Your task to perform on an android device: delete location history Image 0: 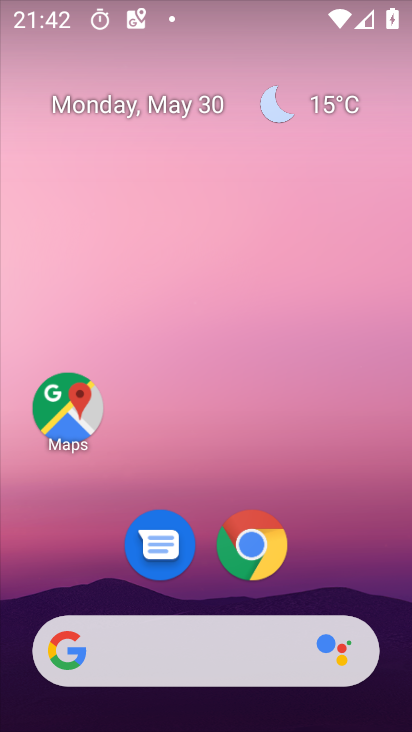
Step 0: drag from (334, 573) to (327, 113)
Your task to perform on an android device: delete location history Image 1: 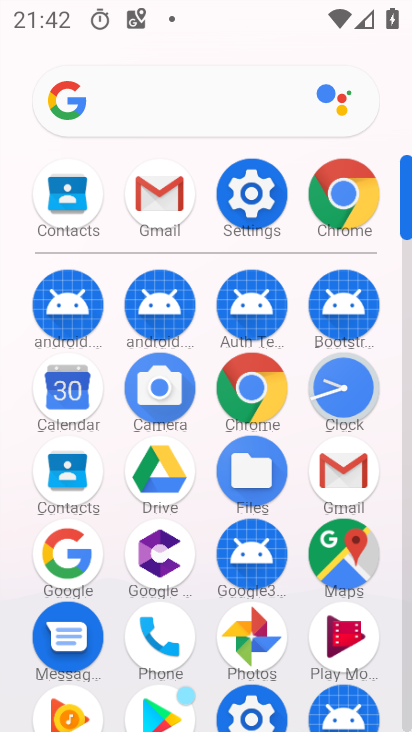
Step 1: click (264, 207)
Your task to perform on an android device: delete location history Image 2: 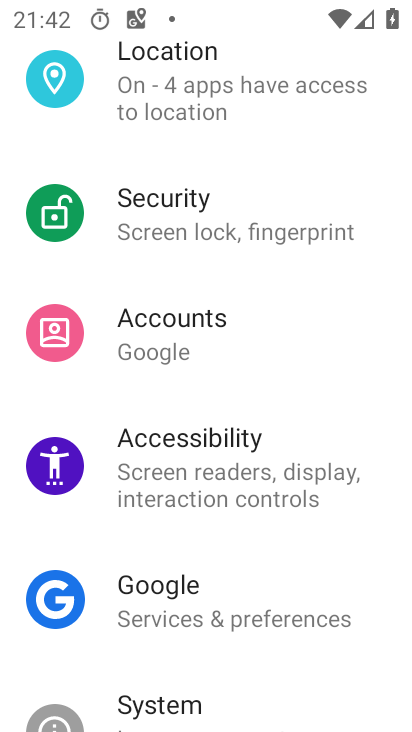
Step 2: click (214, 103)
Your task to perform on an android device: delete location history Image 3: 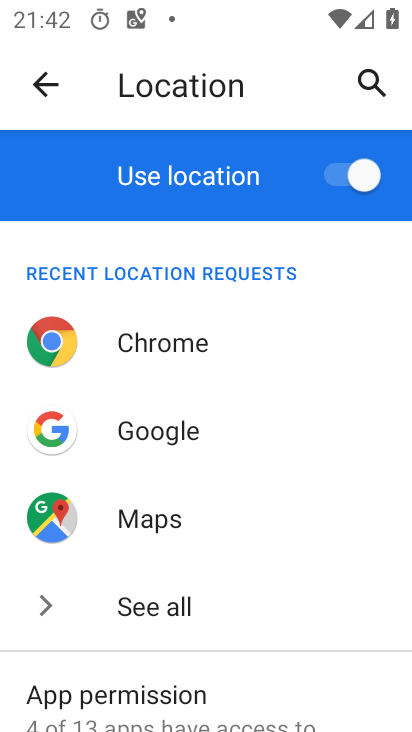
Step 3: drag from (297, 679) to (295, 323)
Your task to perform on an android device: delete location history Image 4: 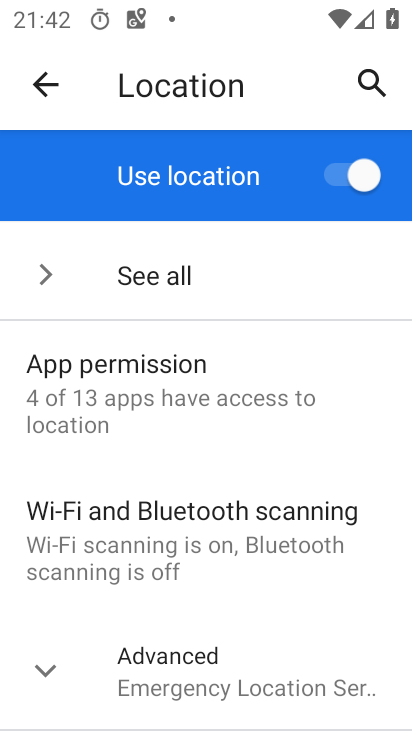
Step 4: drag from (289, 628) to (287, 403)
Your task to perform on an android device: delete location history Image 5: 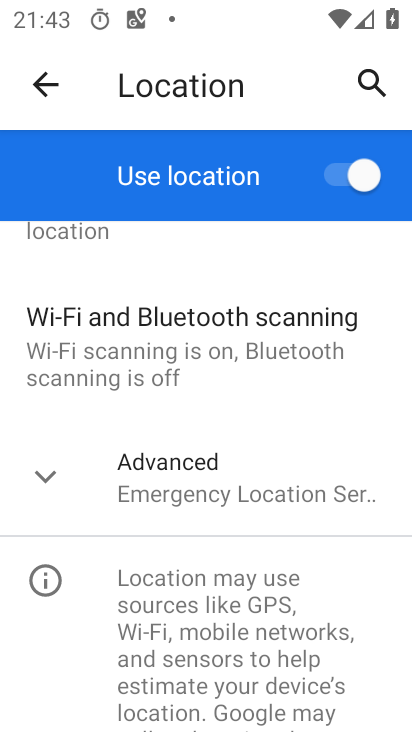
Step 5: click (265, 507)
Your task to perform on an android device: delete location history Image 6: 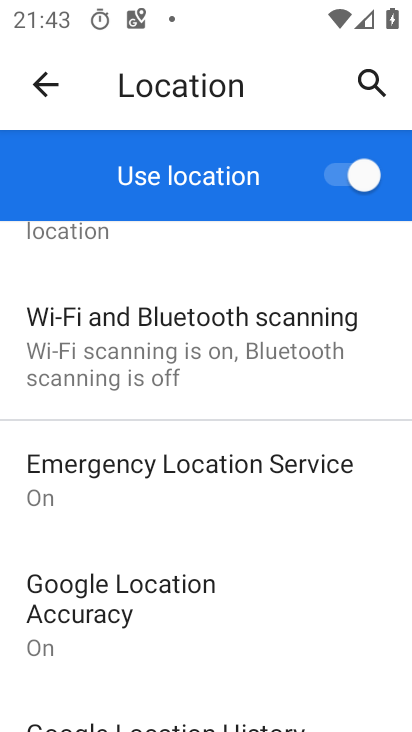
Step 6: drag from (306, 637) to (270, 370)
Your task to perform on an android device: delete location history Image 7: 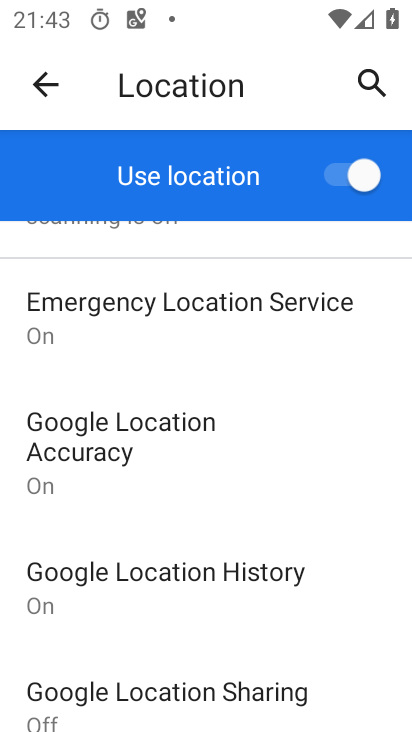
Step 7: click (189, 577)
Your task to perform on an android device: delete location history Image 8: 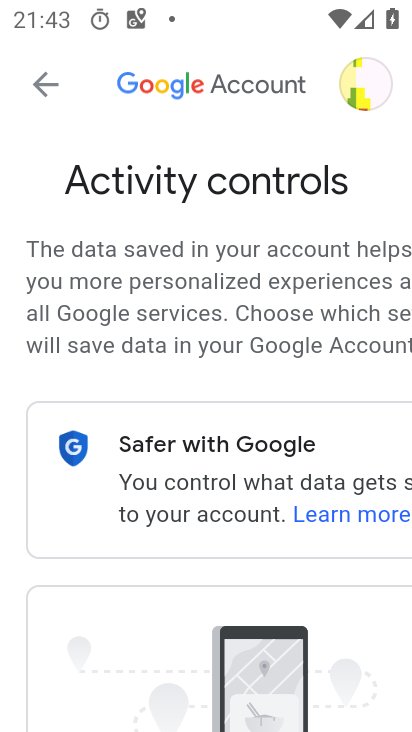
Step 8: drag from (348, 628) to (286, 159)
Your task to perform on an android device: delete location history Image 9: 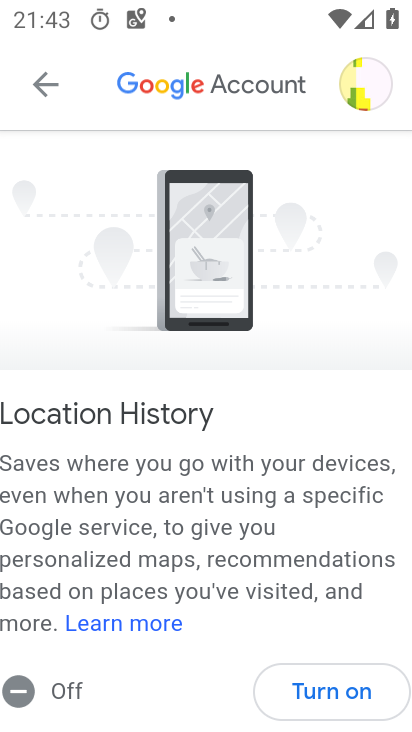
Step 9: drag from (313, 617) to (216, 206)
Your task to perform on an android device: delete location history Image 10: 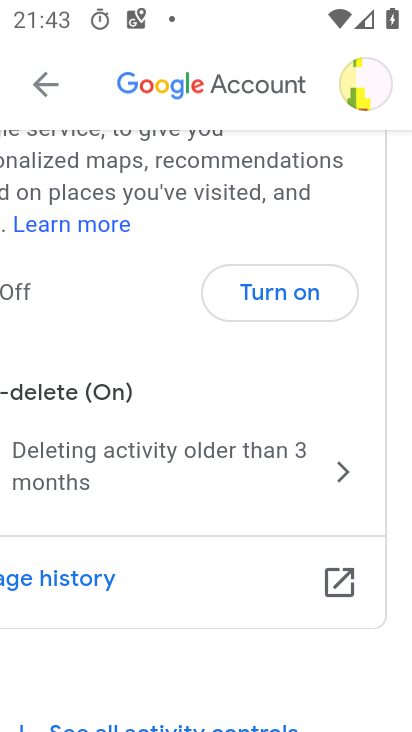
Step 10: click (313, 572)
Your task to perform on an android device: delete location history Image 11: 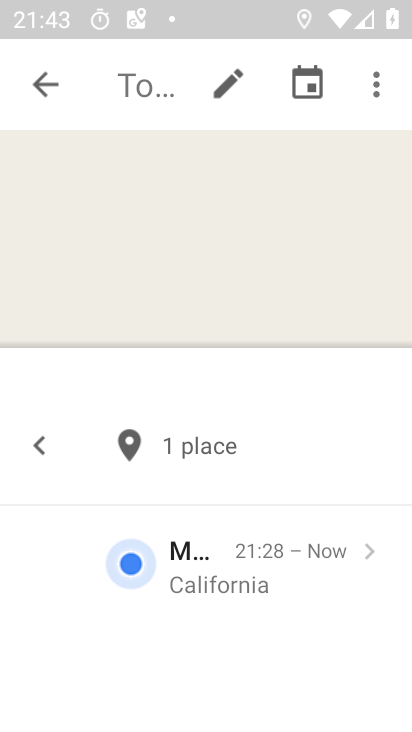
Step 11: drag from (271, 659) to (302, 182)
Your task to perform on an android device: delete location history Image 12: 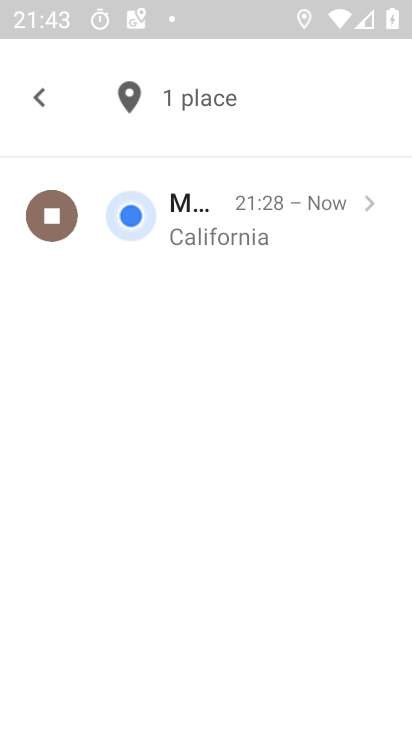
Step 12: click (33, 96)
Your task to perform on an android device: delete location history Image 13: 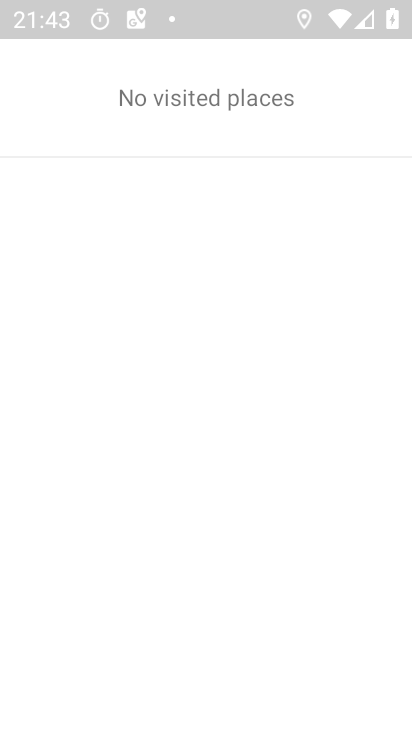
Step 13: drag from (297, 222) to (310, 364)
Your task to perform on an android device: delete location history Image 14: 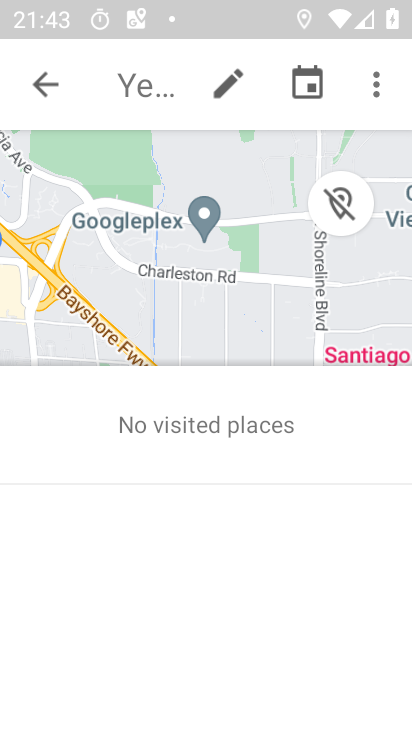
Step 14: click (381, 82)
Your task to perform on an android device: delete location history Image 15: 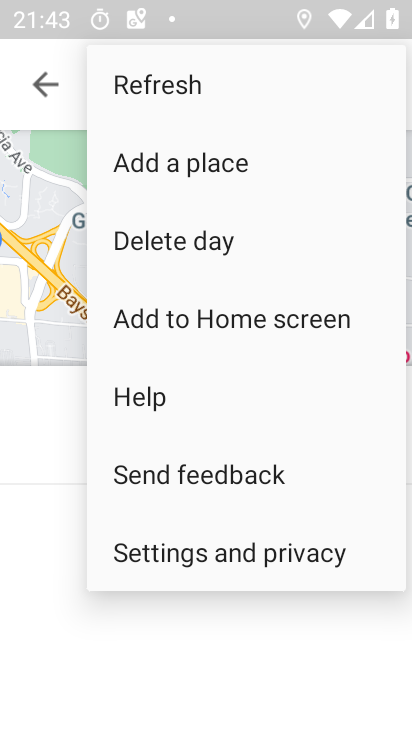
Step 15: click (234, 560)
Your task to perform on an android device: delete location history Image 16: 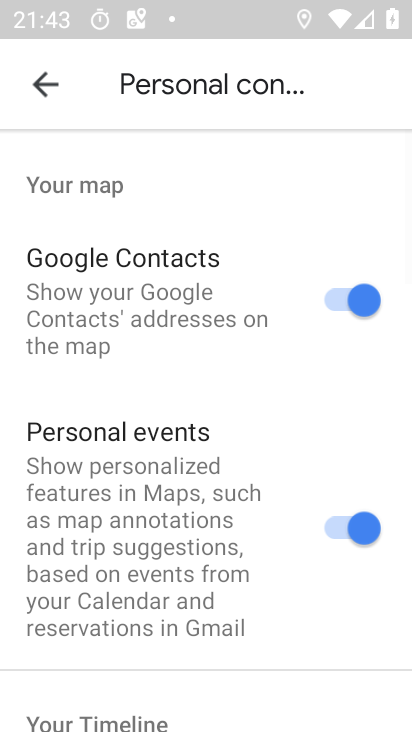
Step 16: drag from (242, 642) to (230, 258)
Your task to perform on an android device: delete location history Image 17: 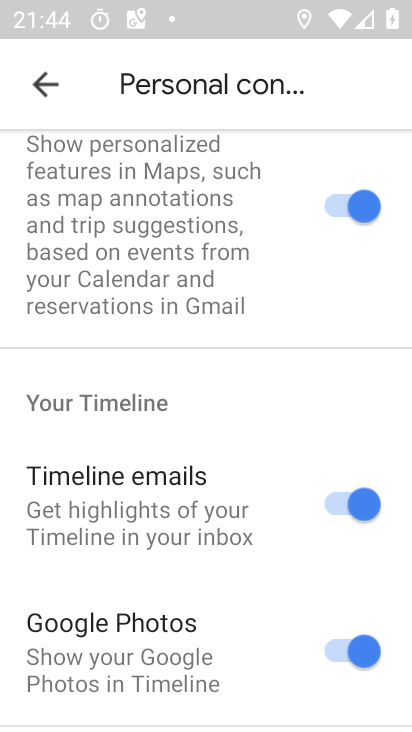
Step 17: drag from (229, 576) to (201, 176)
Your task to perform on an android device: delete location history Image 18: 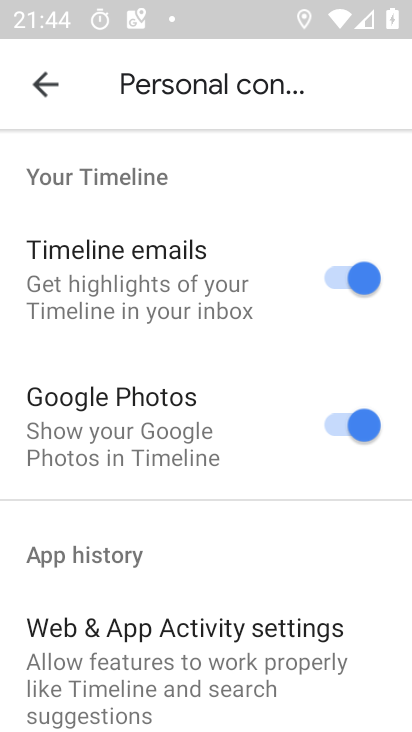
Step 18: drag from (210, 544) to (199, 87)
Your task to perform on an android device: delete location history Image 19: 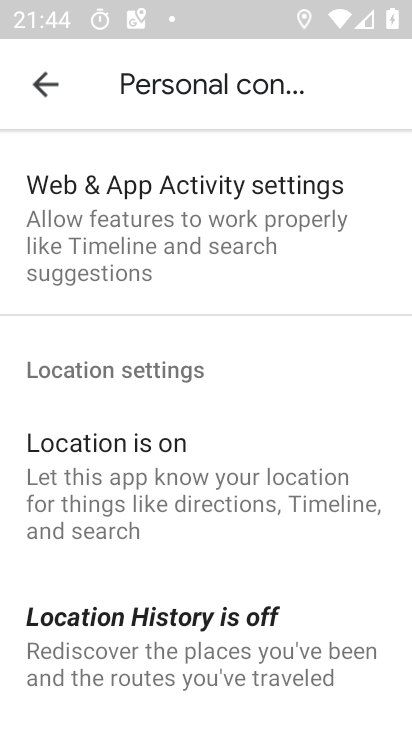
Step 19: drag from (193, 672) to (274, 287)
Your task to perform on an android device: delete location history Image 20: 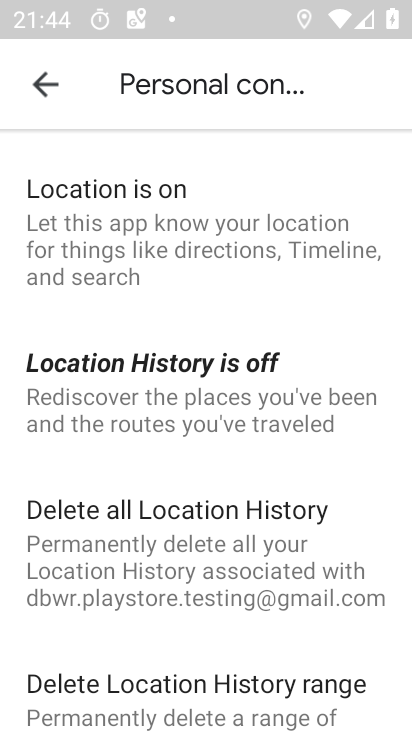
Step 20: click (221, 546)
Your task to perform on an android device: delete location history Image 21: 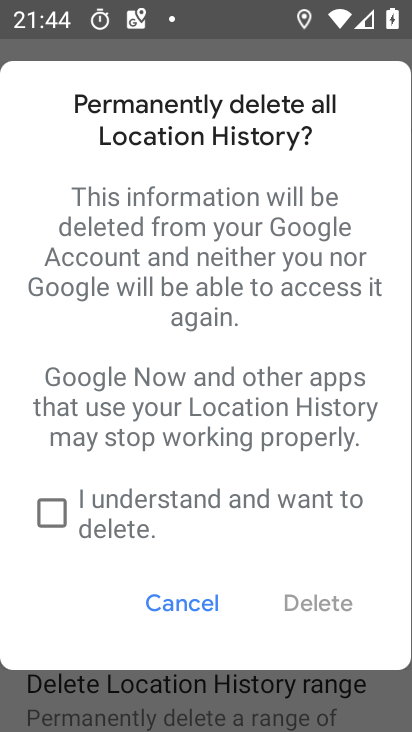
Step 21: click (57, 509)
Your task to perform on an android device: delete location history Image 22: 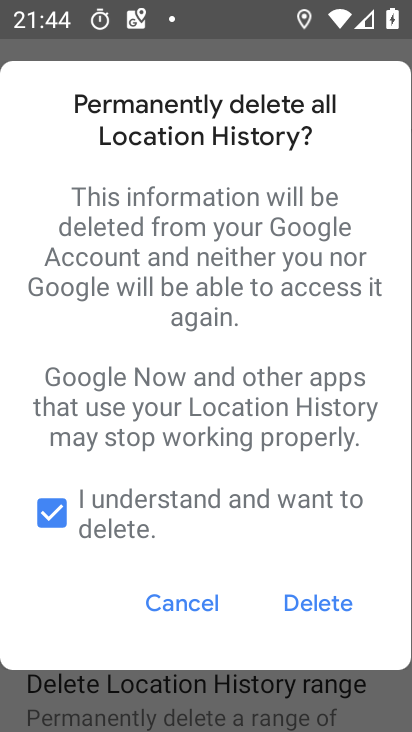
Step 22: click (338, 610)
Your task to perform on an android device: delete location history Image 23: 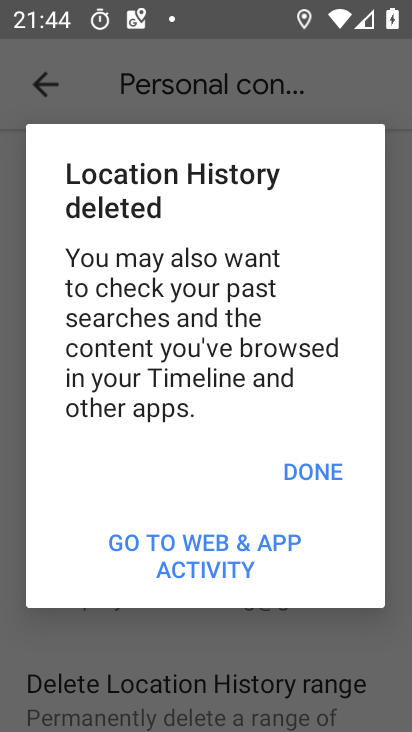
Step 23: click (310, 482)
Your task to perform on an android device: delete location history Image 24: 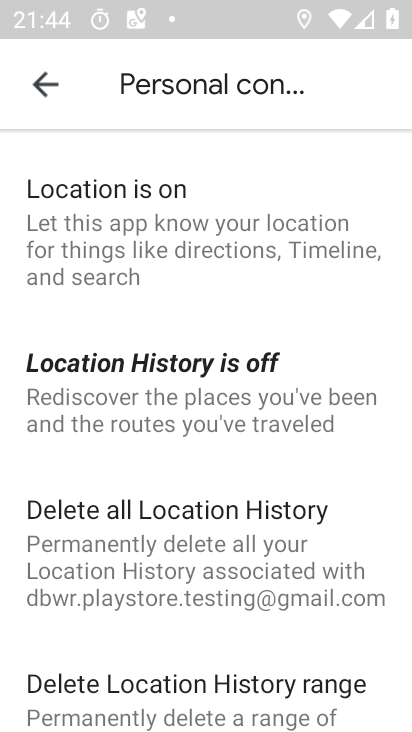
Step 24: task complete